Your task to perform on an android device: What is the news today? Image 0: 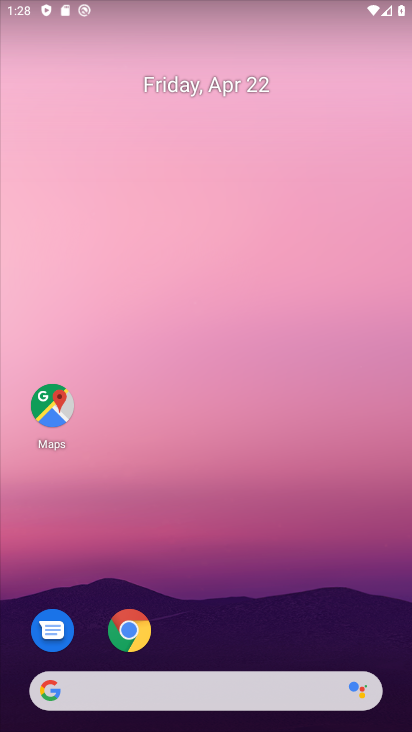
Step 0: click (205, 679)
Your task to perform on an android device: What is the news today? Image 1: 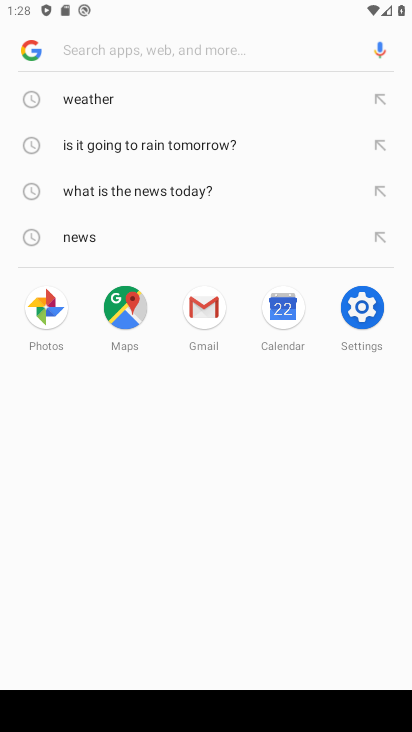
Step 1: type "news today"
Your task to perform on an android device: What is the news today? Image 2: 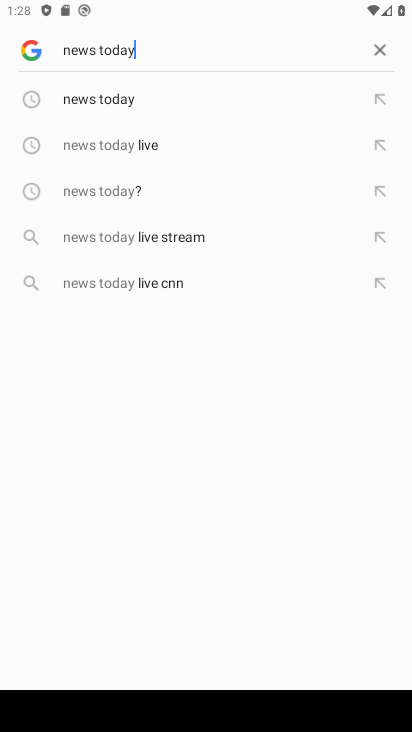
Step 2: click (166, 100)
Your task to perform on an android device: What is the news today? Image 3: 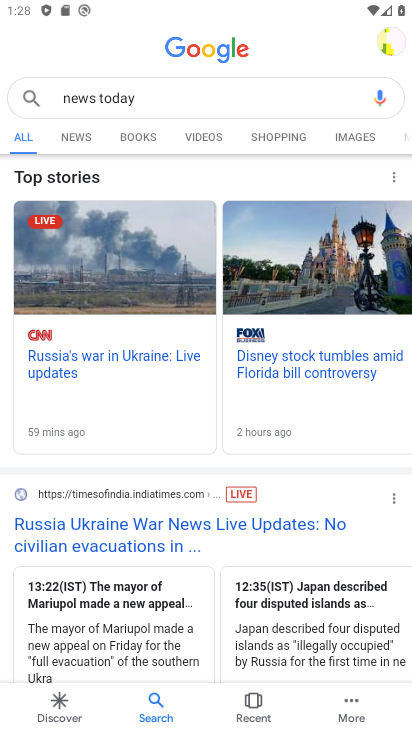
Step 3: task complete